Your task to perform on an android device: uninstall "AliExpress" Image 0: 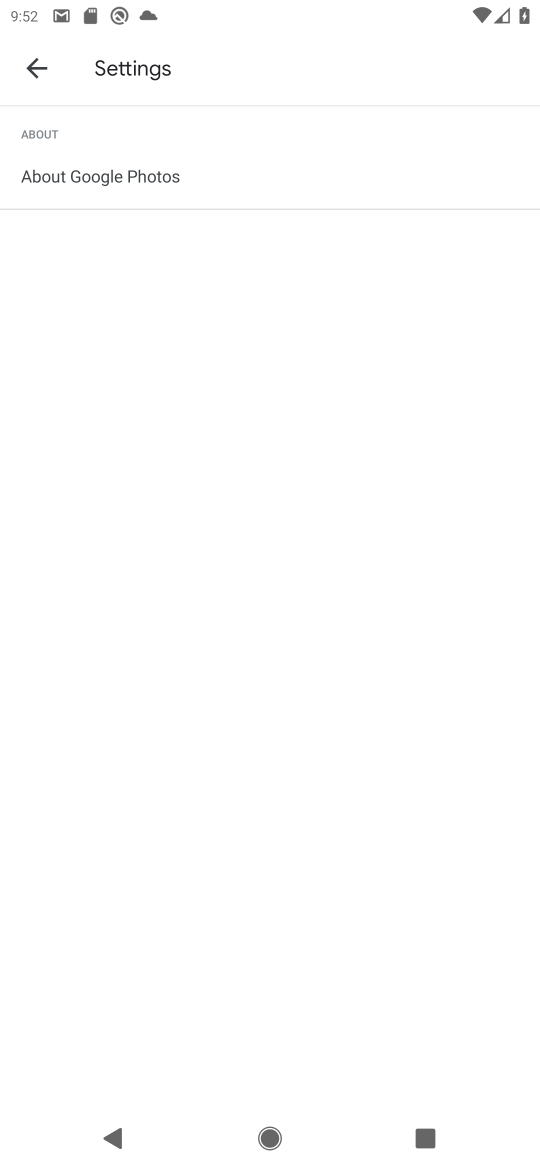
Step 0: press home button
Your task to perform on an android device: uninstall "AliExpress" Image 1: 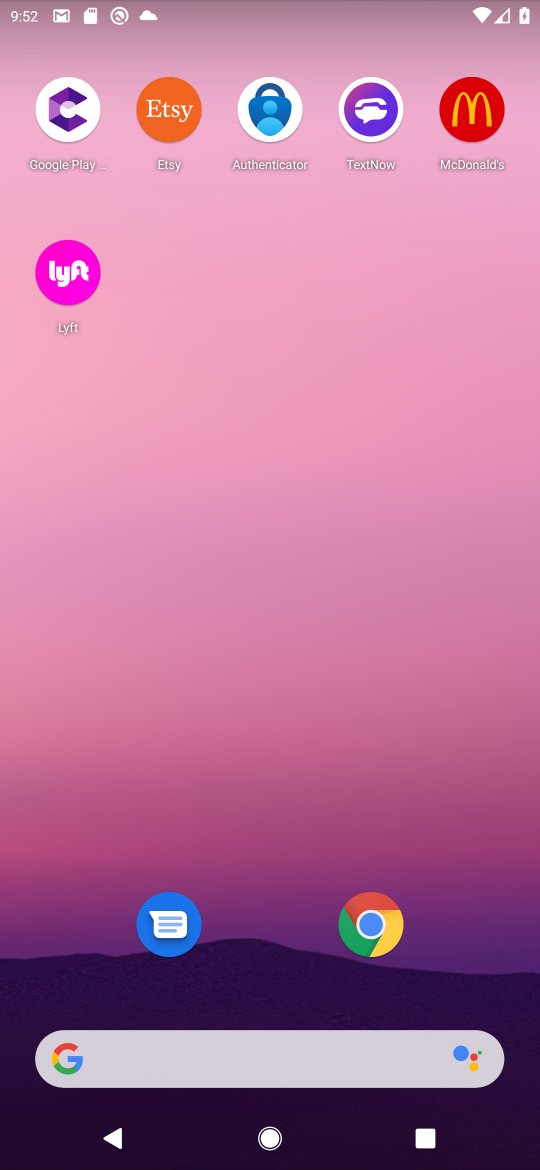
Step 1: drag from (302, 1060) to (344, 96)
Your task to perform on an android device: uninstall "AliExpress" Image 2: 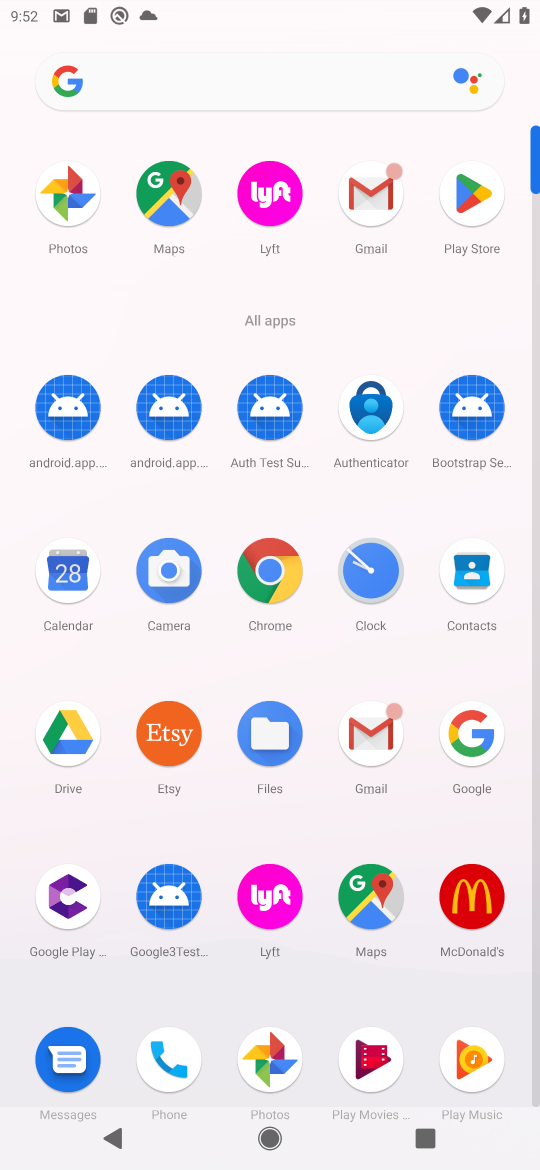
Step 2: click (441, 204)
Your task to perform on an android device: uninstall "AliExpress" Image 3: 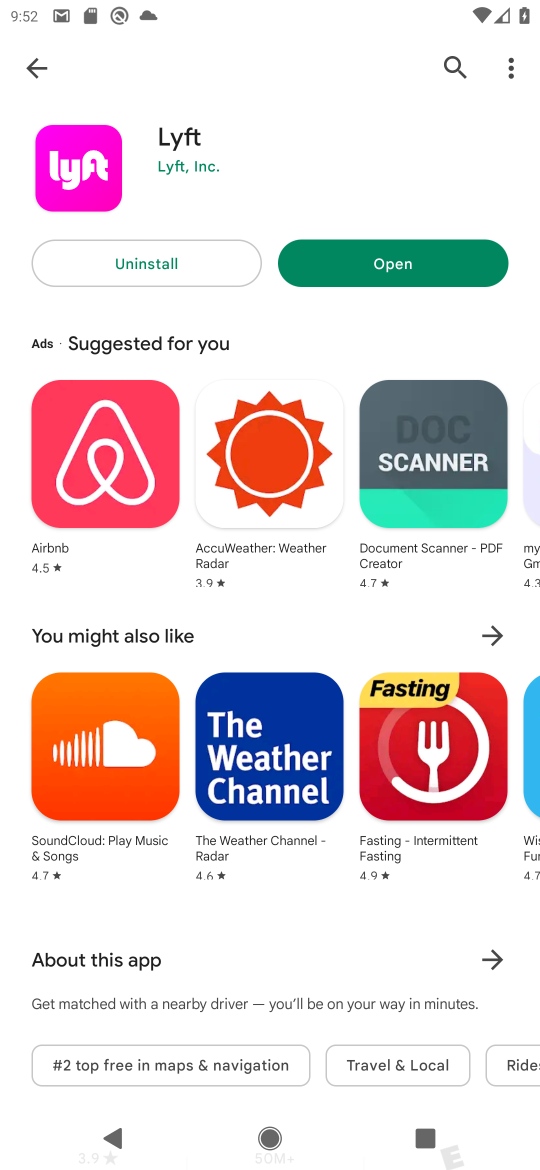
Step 3: click (459, 72)
Your task to perform on an android device: uninstall "AliExpress" Image 4: 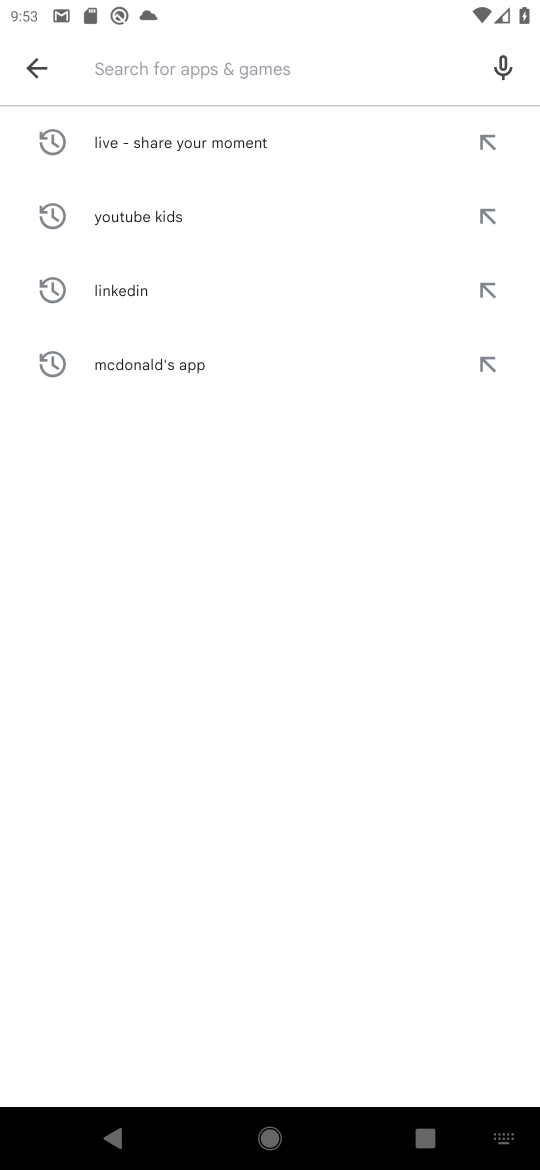
Step 4: type "aliexpress"
Your task to perform on an android device: uninstall "AliExpress" Image 5: 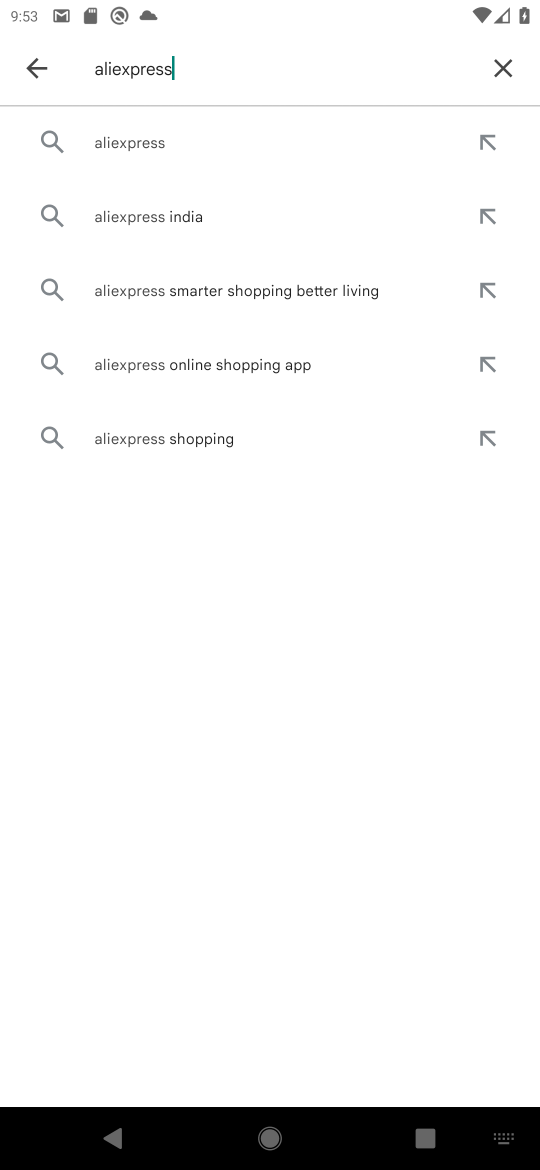
Step 5: click (189, 134)
Your task to perform on an android device: uninstall "AliExpress" Image 6: 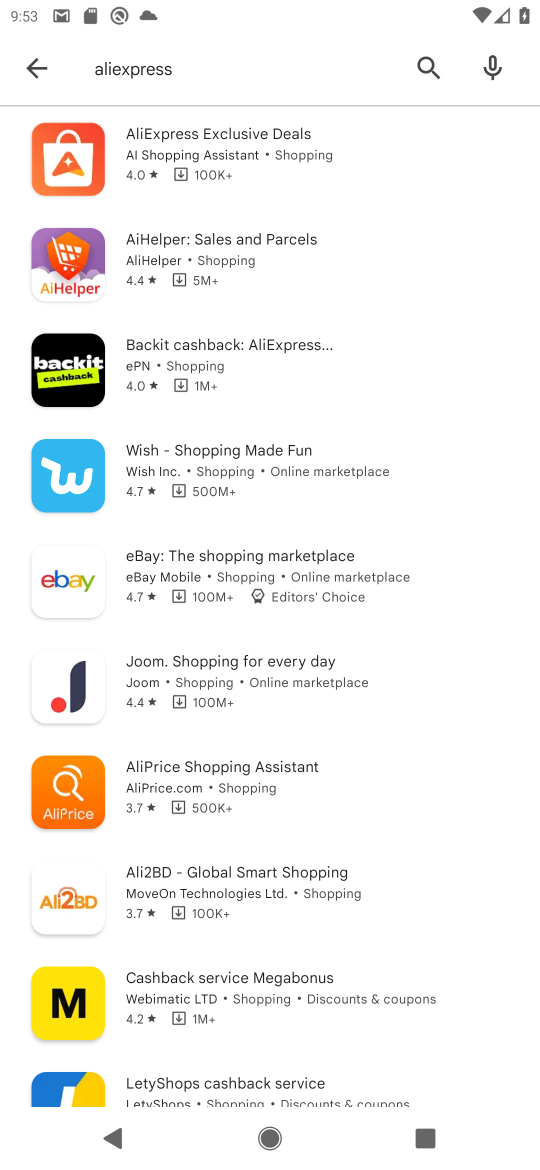
Step 6: click (185, 149)
Your task to perform on an android device: uninstall "AliExpress" Image 7: 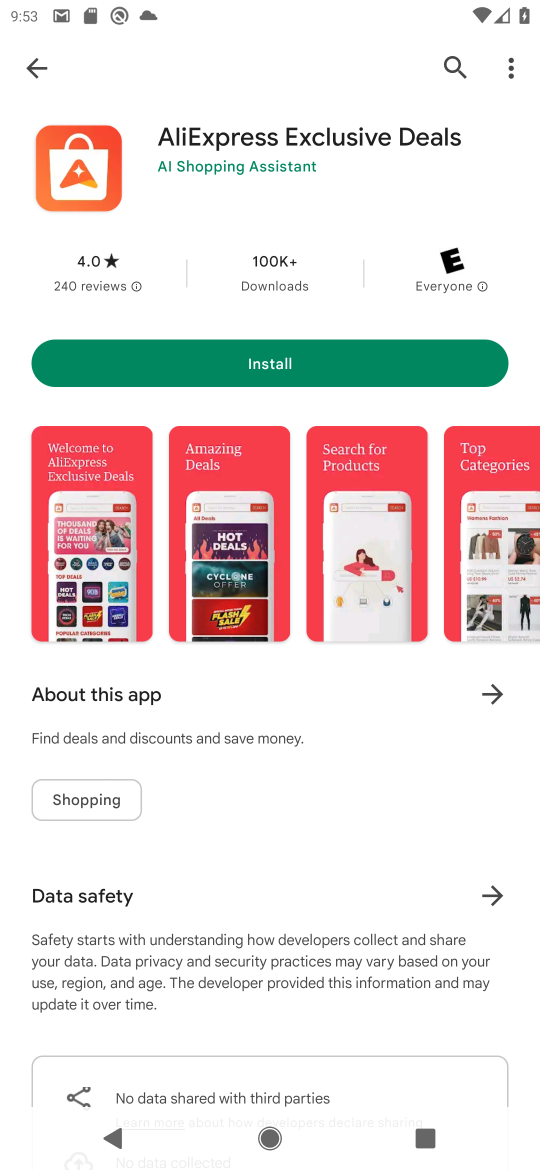
Step 7: task complete